Your task to perform on an android device: Is it going to rain today? Image 0: 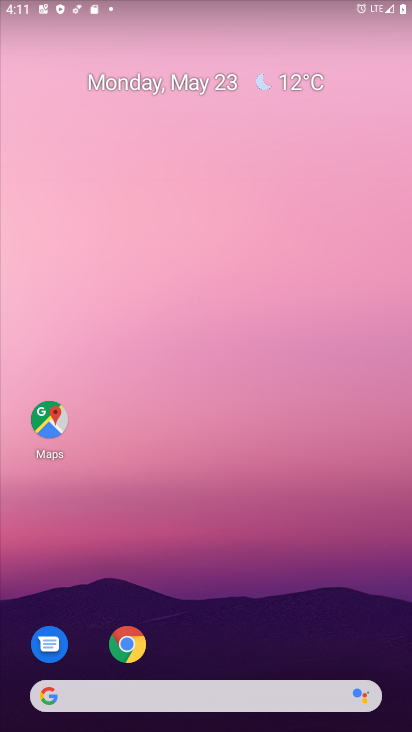
Step 0: drag from (235, 622) to (206, 155)
Your task to perform on an android device: Is it going to rain today? Image 1: 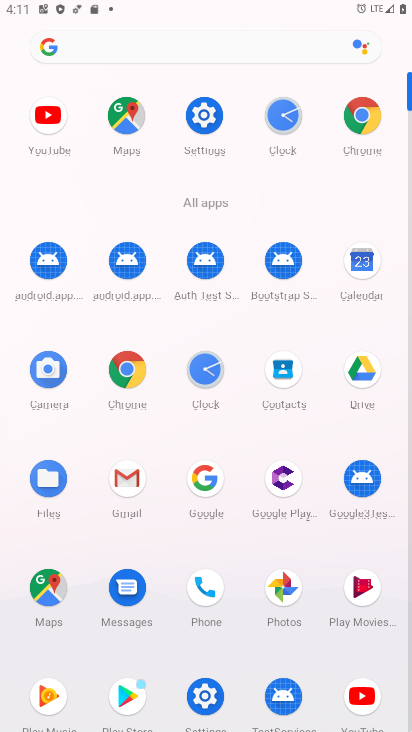
Step 1: click (368, 118)
Your task to perform on an android device: Is it going to rain today? Image 2: 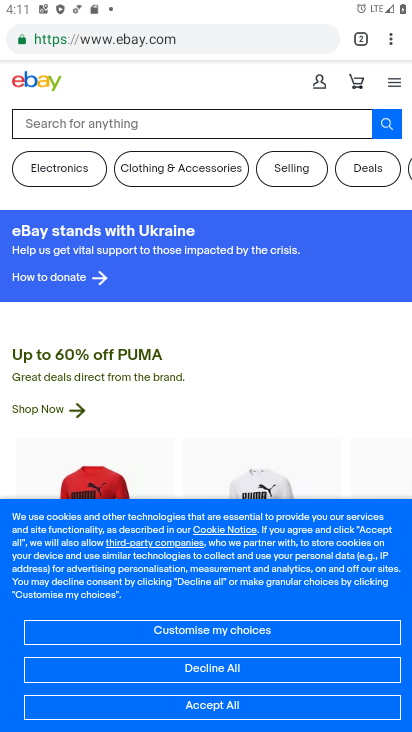
Step 2: click (225, 35)
Your task to perform on an android device: Is it going to rain today? Image 3: 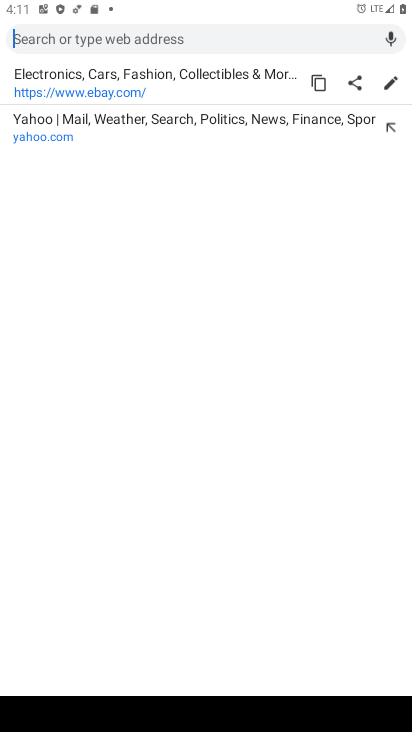
Step 3: type "Is it going to rain today?"
Your task to perform on an android device: Is it going to rain today? Image 4: 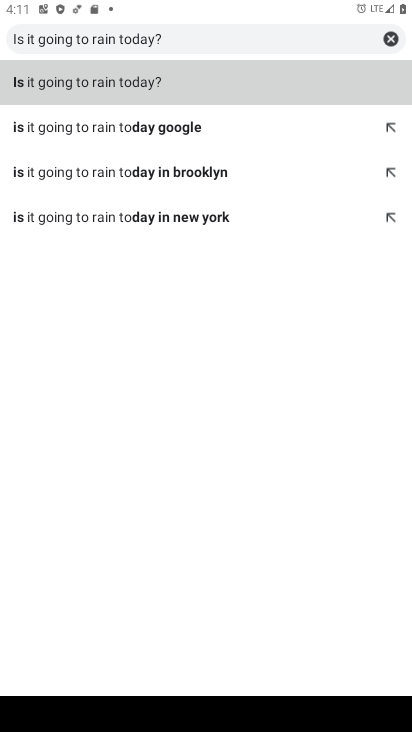
Step 4: click (132, 84)
Your task to perform on an android device: Is it going to rain today? Image 5: 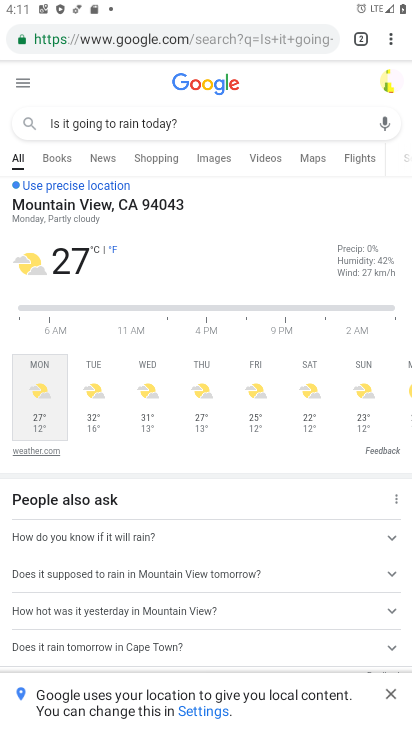
Step 5: task complete